Your task to perform on an android device: turn off improve location accuracy Image 0: 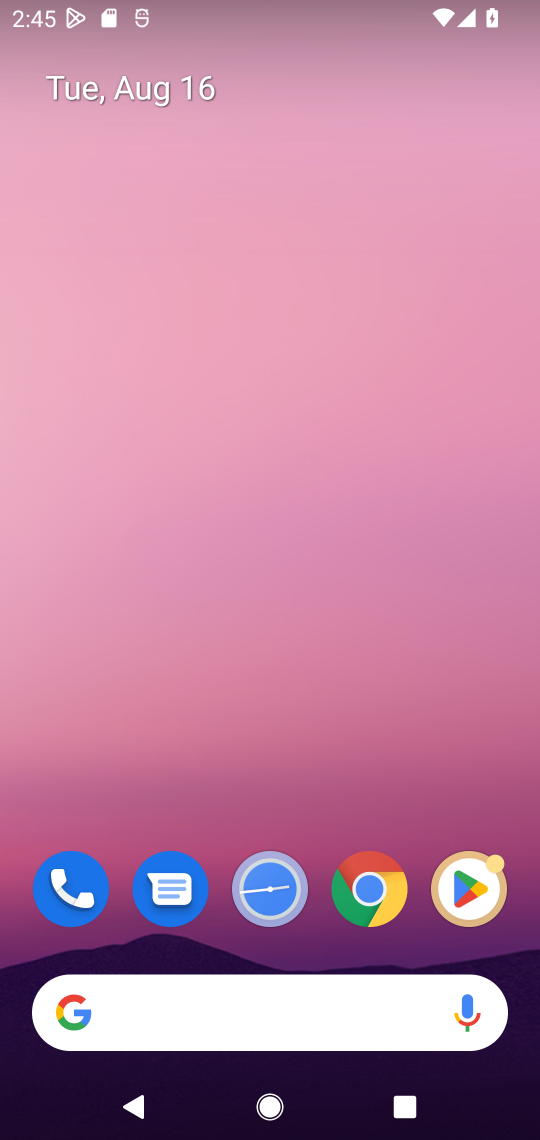
Step 0: drag from (273, 712) to (306, 28)
Your task to perform on an android device: turn off improve location accuracy Image 1: 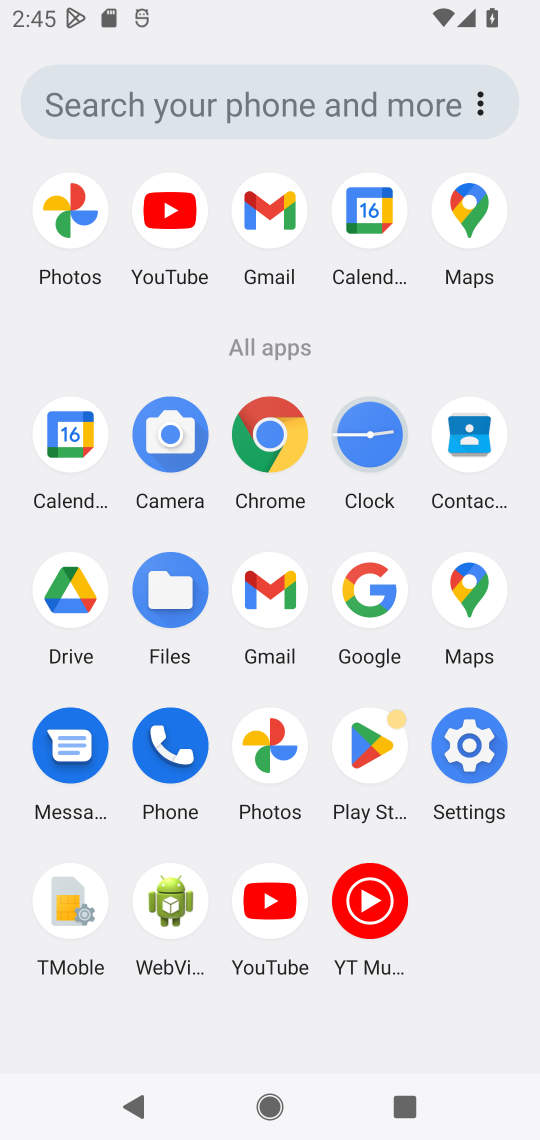
Step 1: click (470, 746)
Your task to perform on an android device: turn off improve location accuracy Image 2: 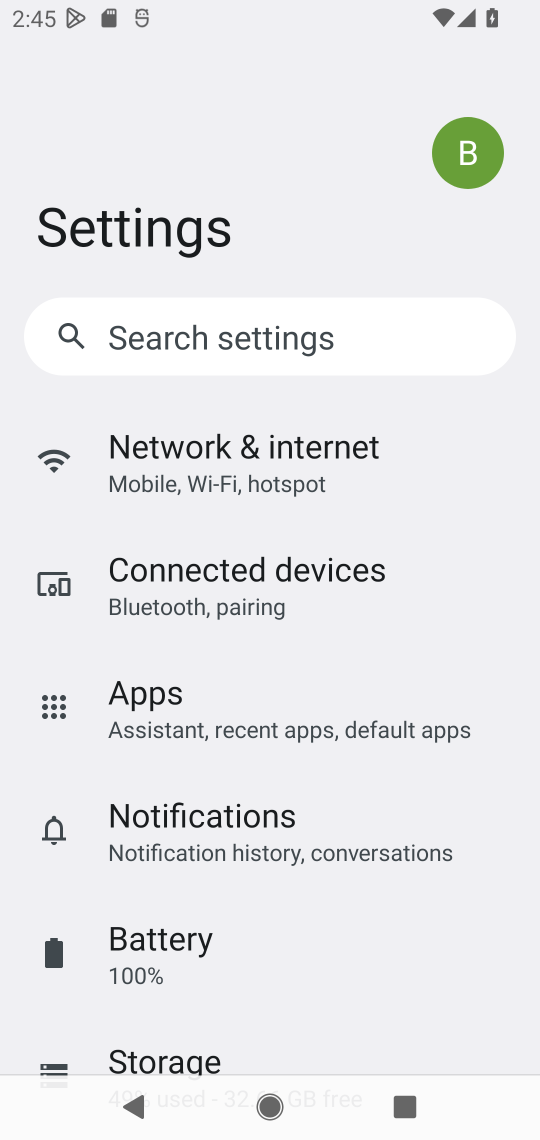
Step 2: drag from (317, 853) to (295, 225)
Your task to perform on an android device: turn off improve location accuracy Image 3: 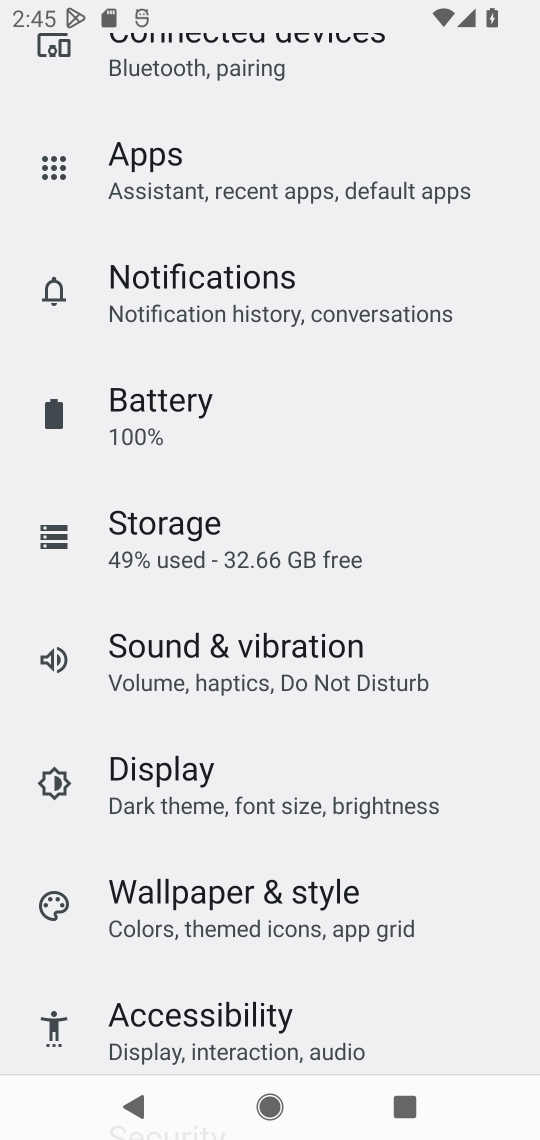
Step 3: drag from (243, 897) to (220, 450)
Your task to perform on an android device: turn off improve location accuracy Image 4: 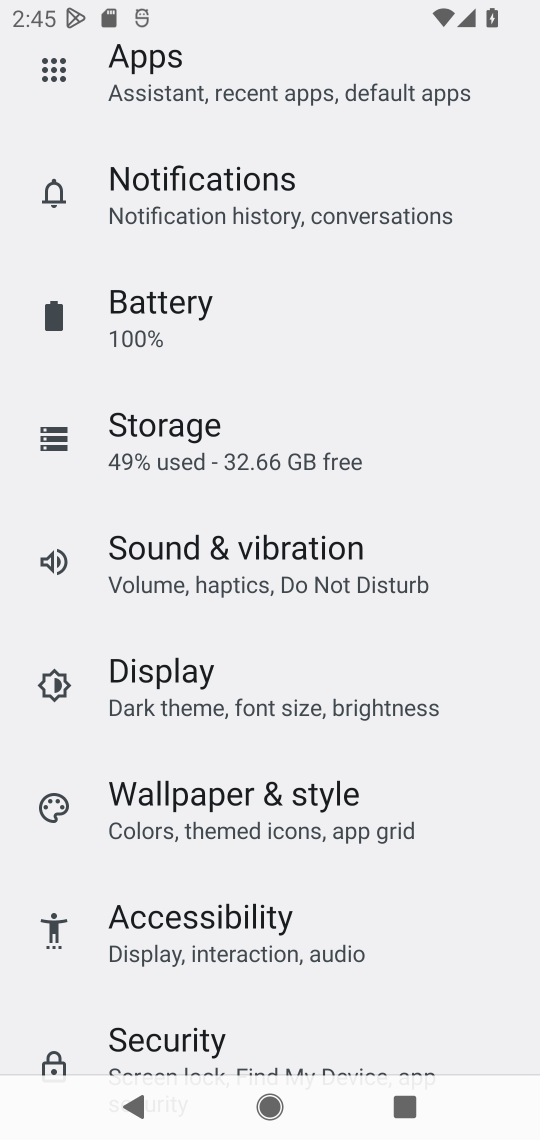
Step 4: drag from (189, 768) to (177, 54)
Your task to perform on an android device: turn off improve location accuracy Image 5: 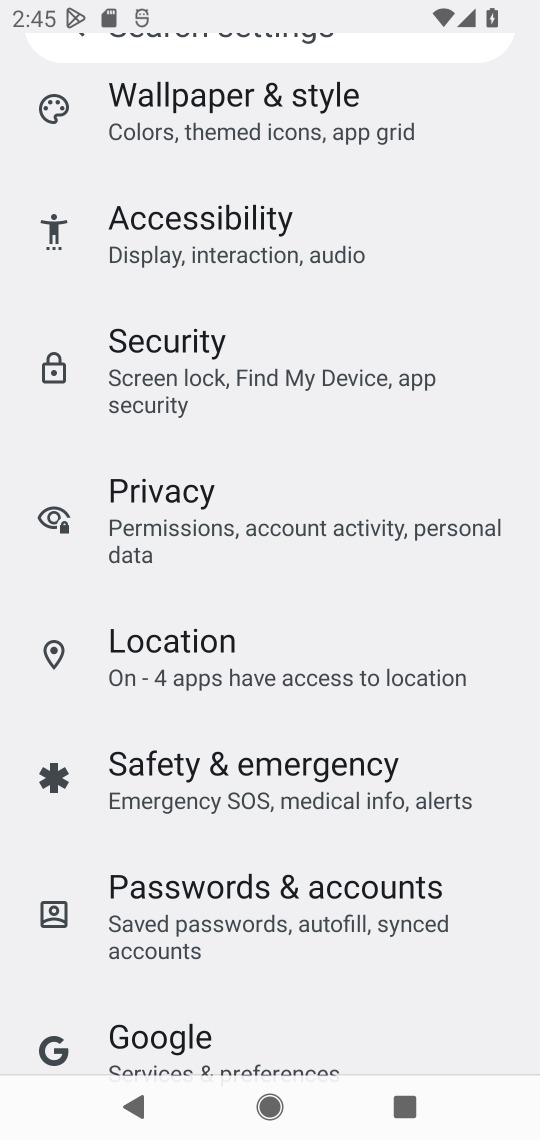
Step 5: click (243, 643)
Your task to perform on an android device: turn off improve location accuracy Image 6: 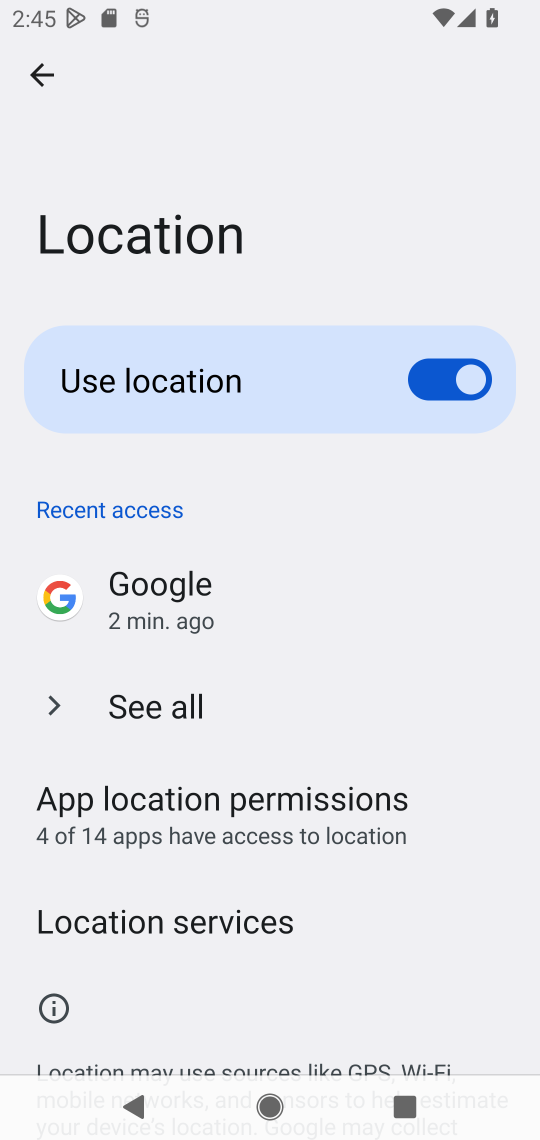
Step 6: task complete